Your task to perform on an android device: open chrome and create a bookmark for the current page Image 0: 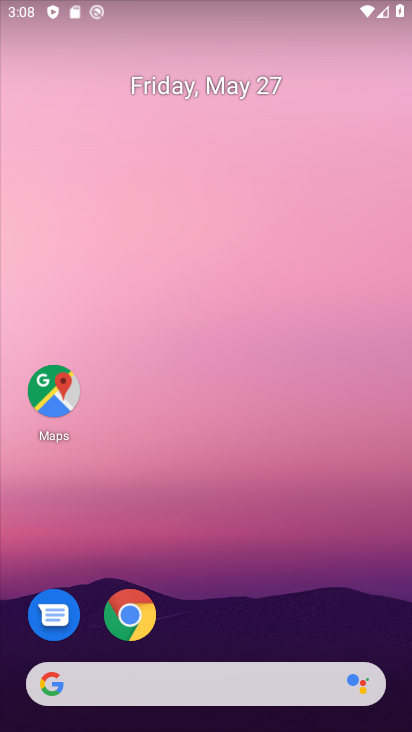
Step 0: click (105, 622)
Your task to perform on an android device: open chrome and create a bookmark for the current page Image 1: 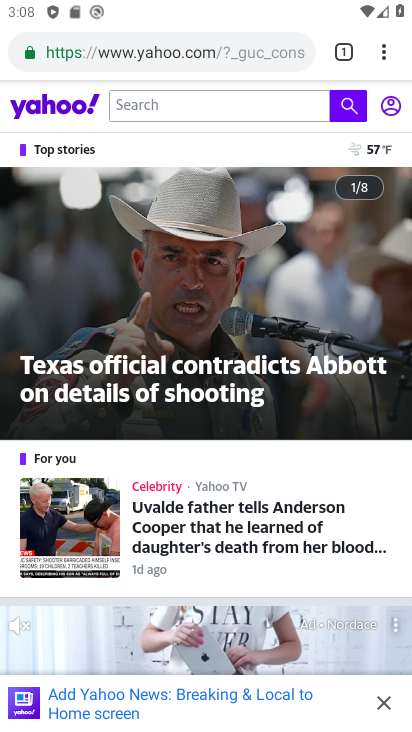
Step 1: click (384, 58)
Your task to perform on an android device: open chrome and create a bookmark for the current page Image 2: 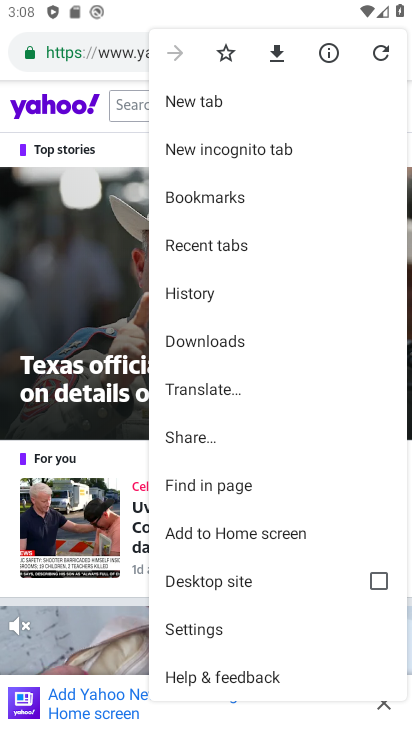
Step 2: click (229, 57)
Your task to perform on an android device: open chrome and create a bookmark for the current page Image 3: 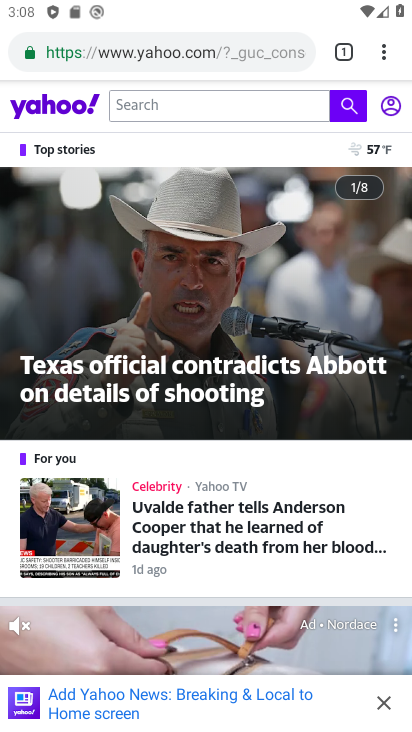
Step 3: task complete